Your task to perform on an android device: What's on my calendar tomorrow? Image 0: 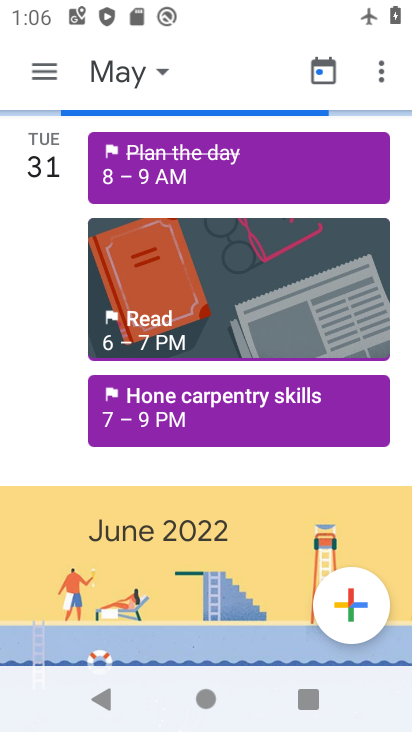
Step 0: press home button
Your task to perform on an android device: What's on my calendar tomorrow? Image 1: 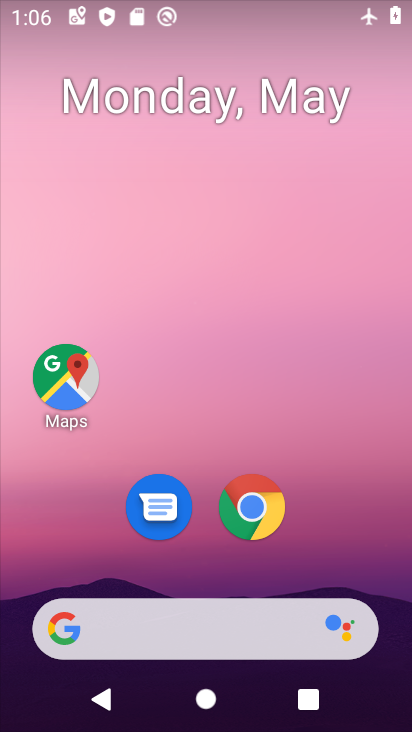
Step 1: drag from (226, 725) to (220, 131)
Your task to perform on an android device: What's on my calendar tomorrow? Image 2: 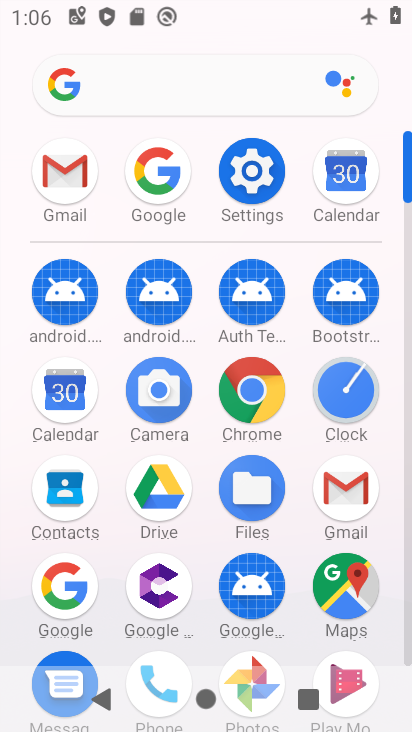
Step 2: click (56, 407)
Your task to perform on an android device: What's on my calendar tomorrow? Image 3: 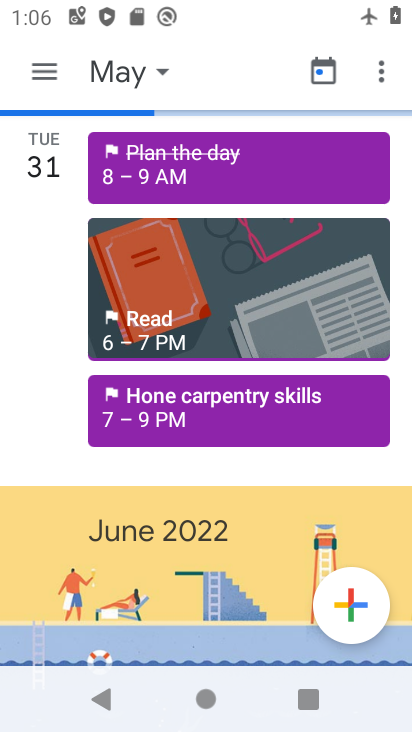
Step 3: task complete